Your task to perform on an android device: Open privacy settings Image 0: 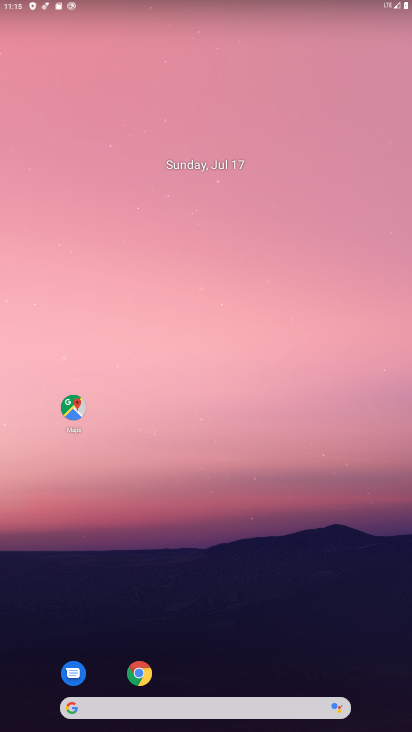
Step 0: drag from (223, 636) to (153, 114)
Your task to perform on an android device: Open privacy settings Image 1: 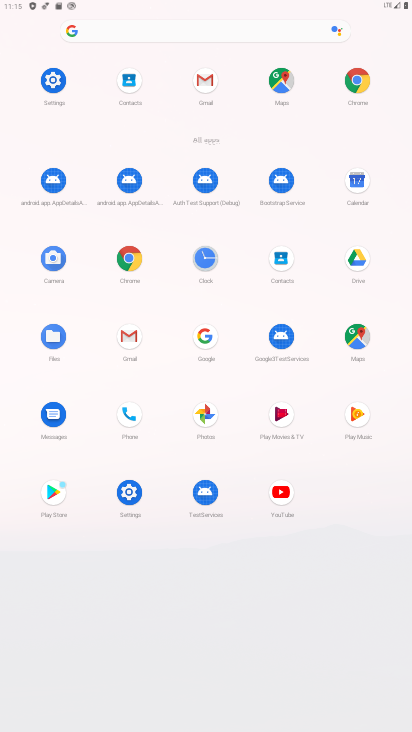
Step 1: click (51, 79)
Your task to perform on an android device: Open privacy settings Image 2: 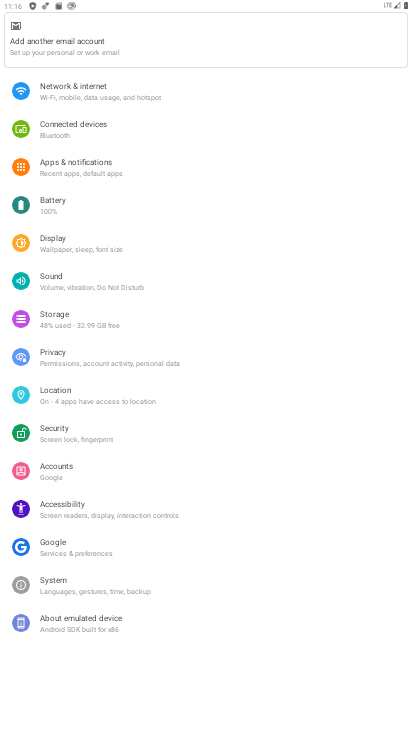
Step 2: click (52, 352)
Your task to perform on an android device: Open privacy settings Image 3: 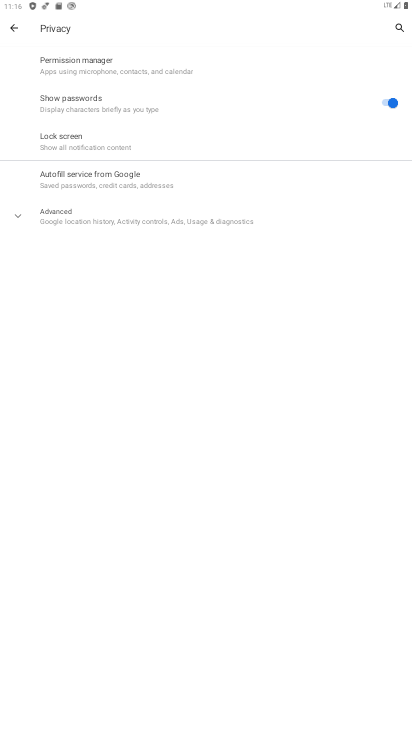
Step 3: task complete